Your task to perform on an android device: open app "PUBG MOBILE" (install if not already installed) Image 0: 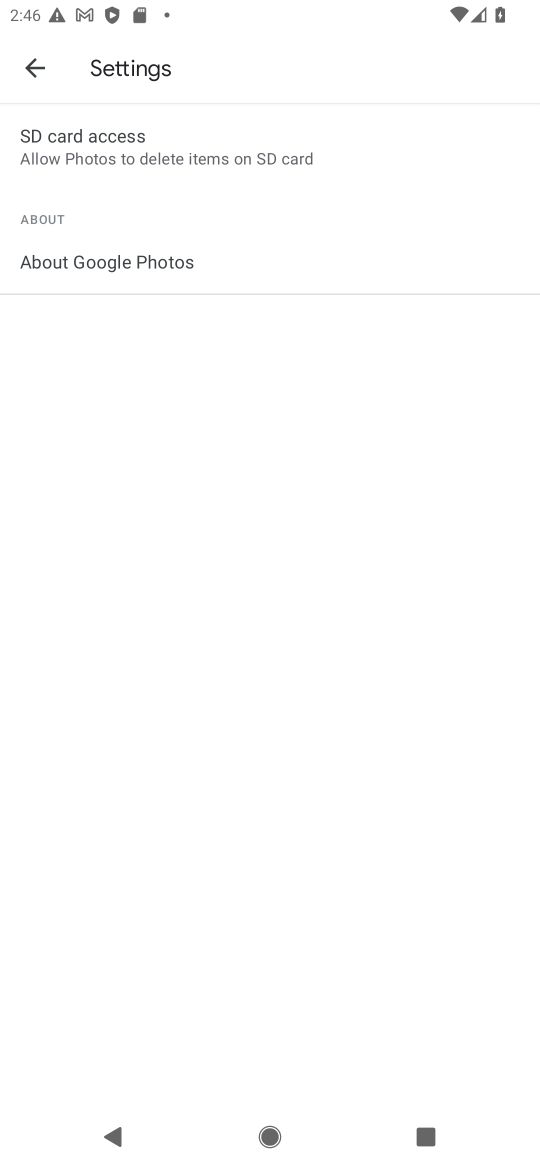
Step 0: press home button
Your task to perform on an android device: open app "PUBG MOBILE" (install if not already installed) Image 1: 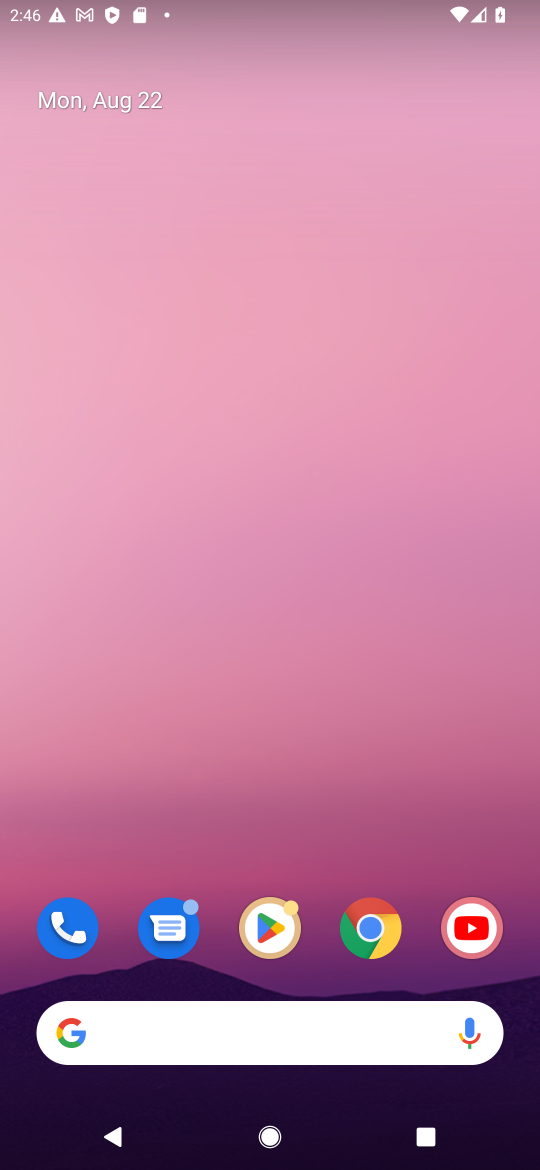
Step 1: click (266, 922)
Your task to perform on an android device: open app "PUBG MOBILE" (install if not already installed) Image 2: 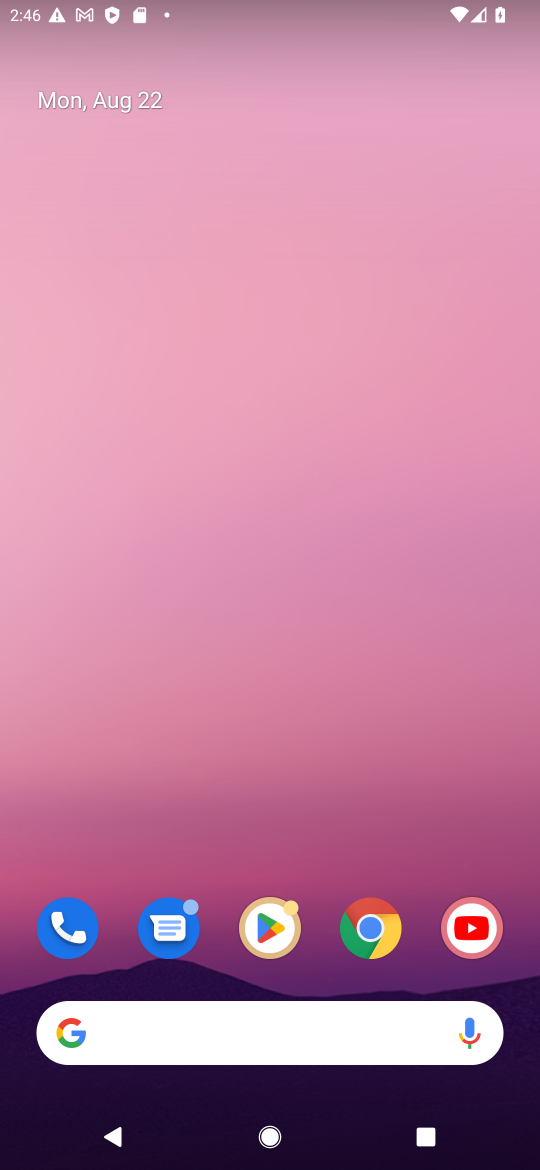
Step 2: click (268, 924)
Your task to perform on an android device: open app "PUBG MOBILE" (install if not already installed) Image 3: 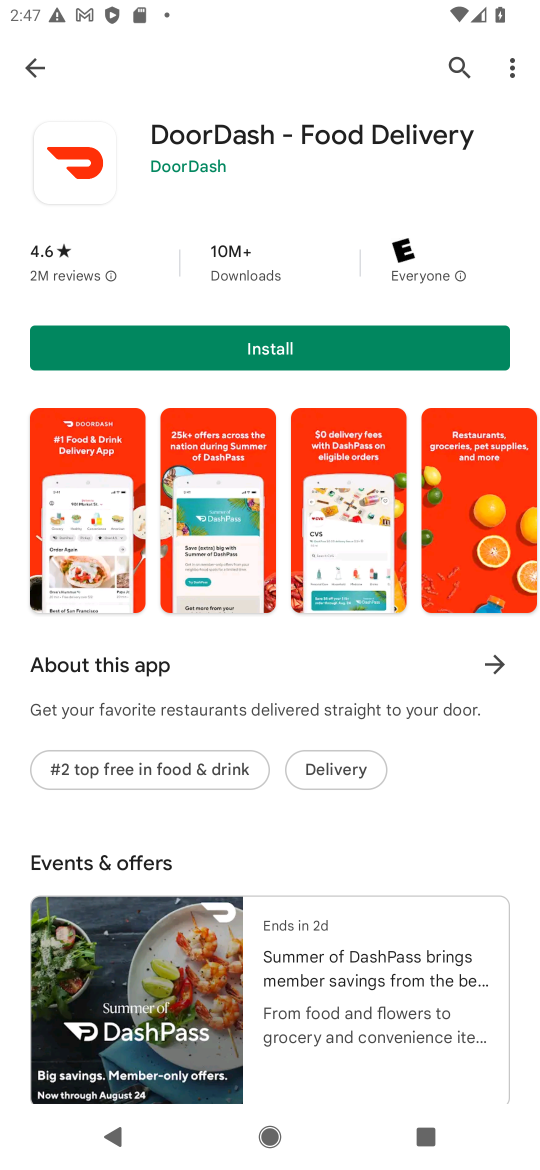
Step 3: click (31, 63)
Your task to perform on an android device: open app "PUBG MOBILE" (install if not already installed) Image 4: 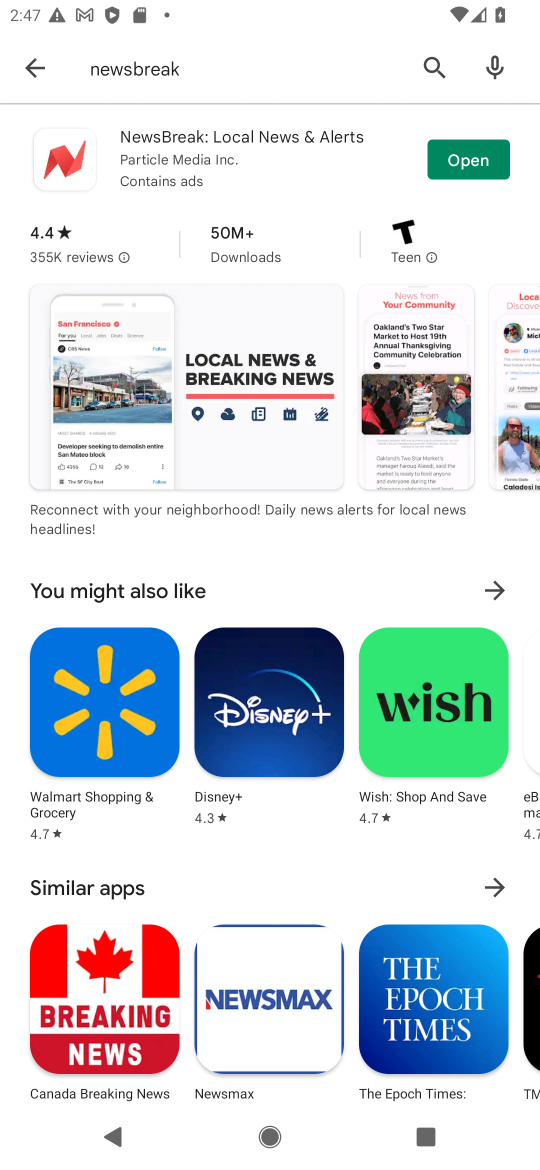
Step 4: click (181, 60)
Your task to perform on an android device: open app "PUBG MOBILE" (install if not already installed) Image 5: 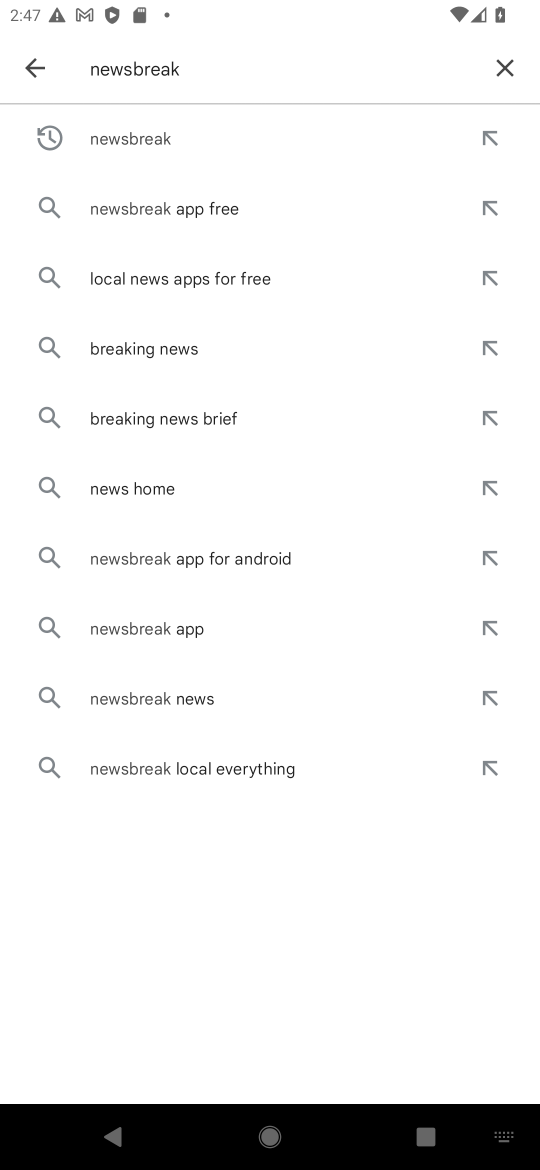
Step 5: click (503, 58)
Your task to perform on an android device: open app "PUBG MOBILE" (install if not already installed) Image 6: 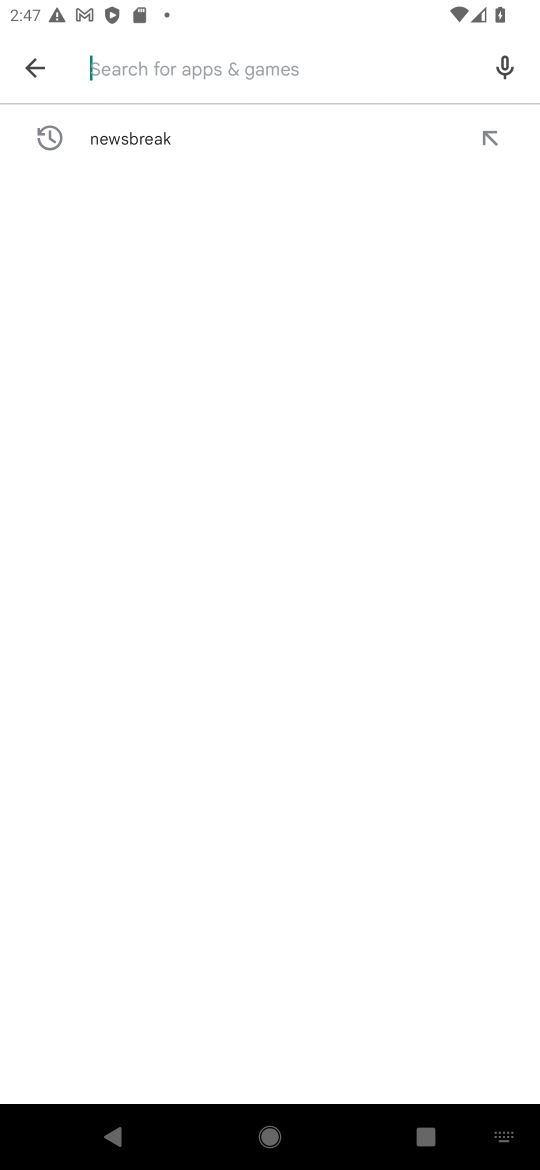
Step 6: type "PUBG Mobile"
Your task to perform on an android device: open app "PUBG MOBILE" (install if not already installed) Image 7: 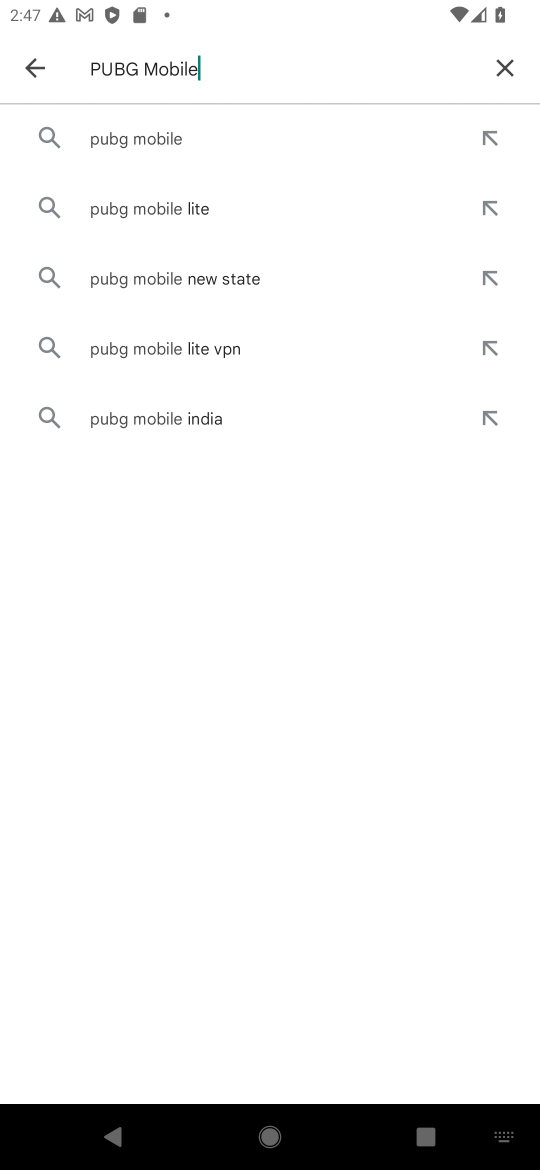
Step 7: click (140, 157)
Your task to perform on an android device: open app "PUBG MOBILE" (install if not already installed) Image 8: 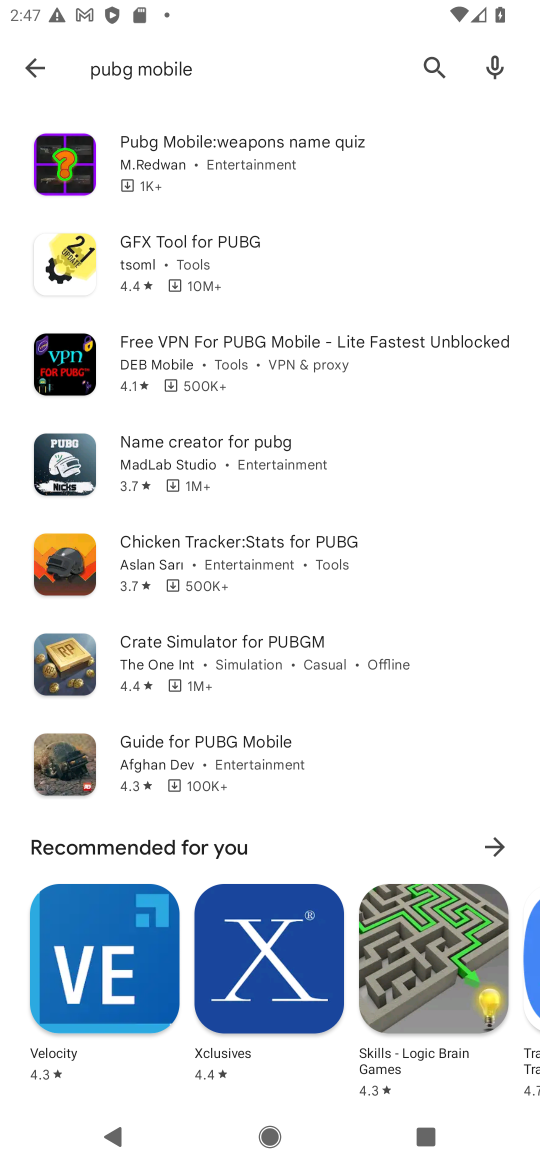
Step 8: task complete